Your task to perform on an android device: open app "Facebook" (install if not already installed) Image 0: 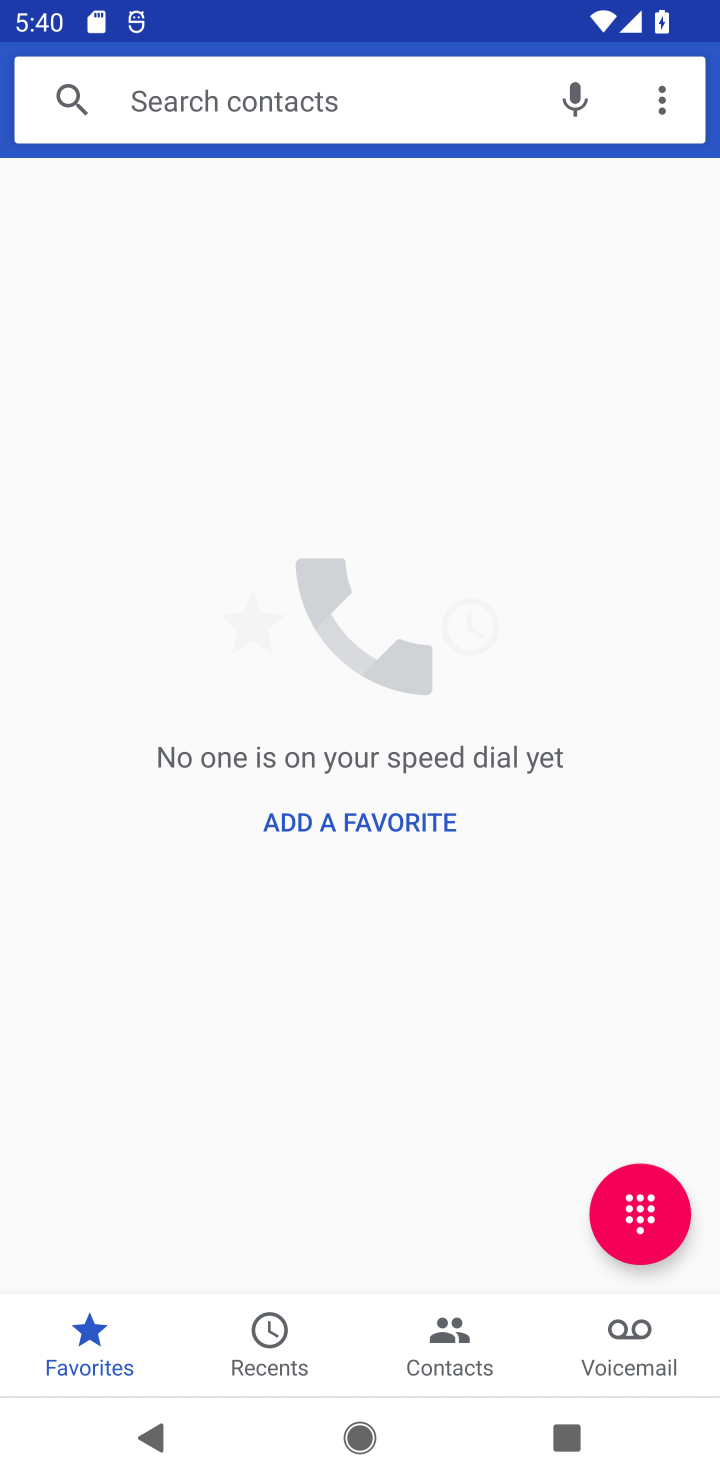
Step 0: press home button
Your task to perform on an android device: open app "Facebook" (install if not already installed) Image 1: 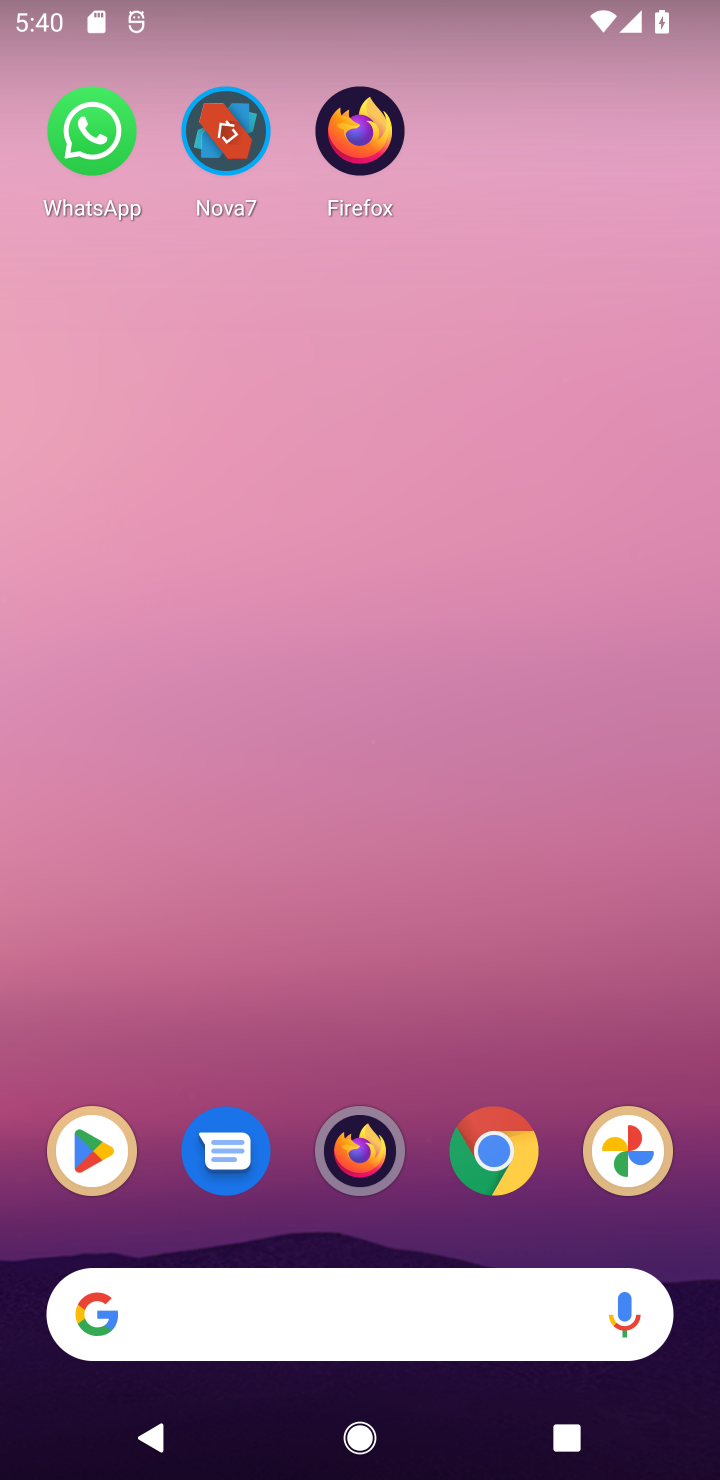
Step 1: click (106, 1161)
Your task to perform on an android device: open app "Facebook" (install if not already installed) Image 2: 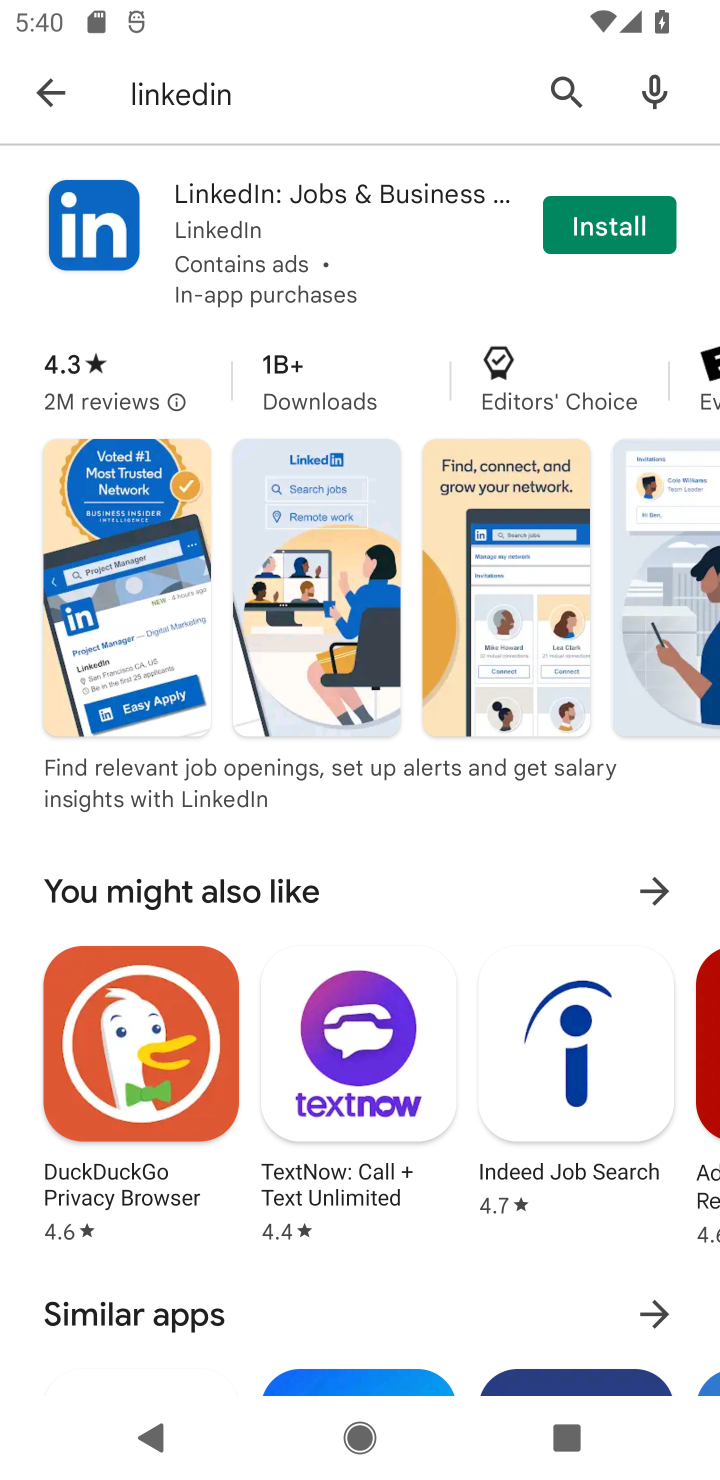
Step 2: click (549, 95)
Your task to perform on an android device: open app "Facebook" (install if not already installed) Image 3: 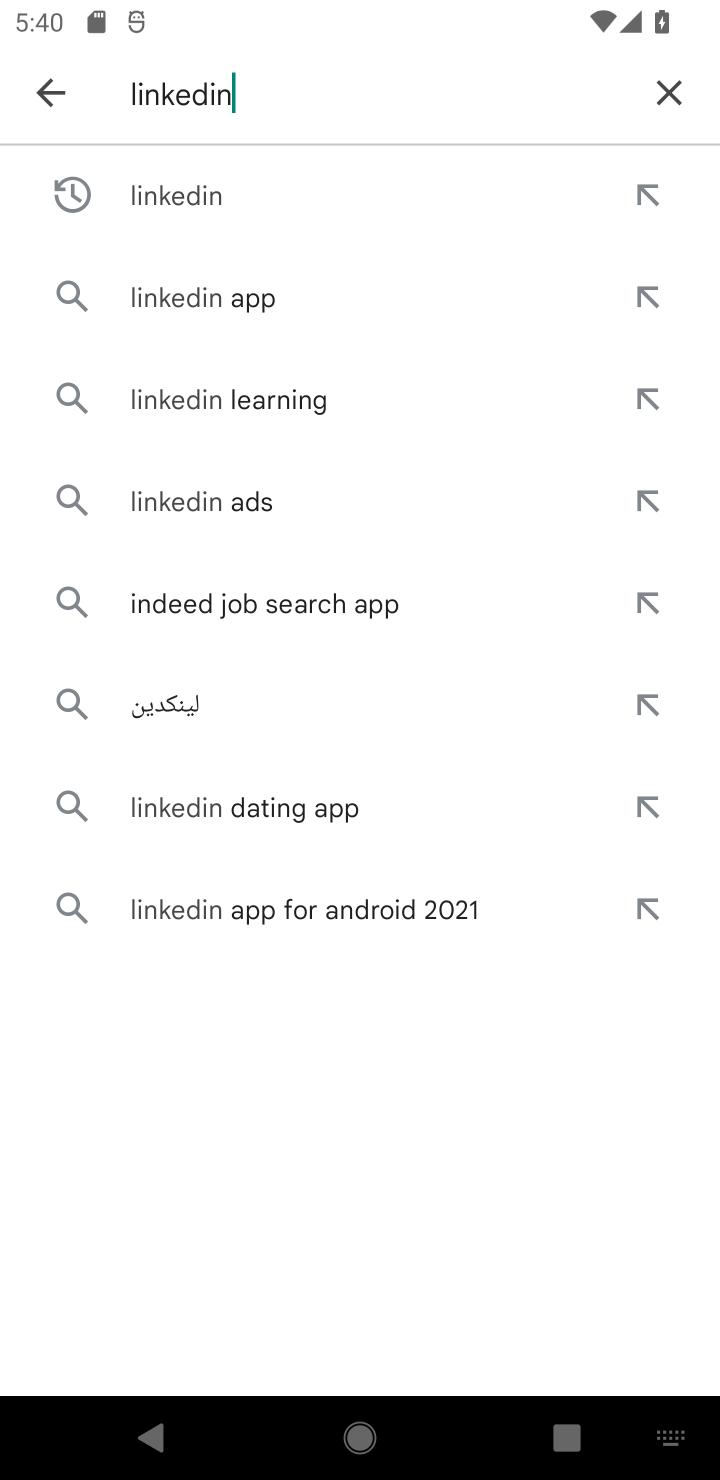
Step 3: click (656, 103)
Your task to perform on an android device: open app "Facebook" (install if not already installed) Image 4: 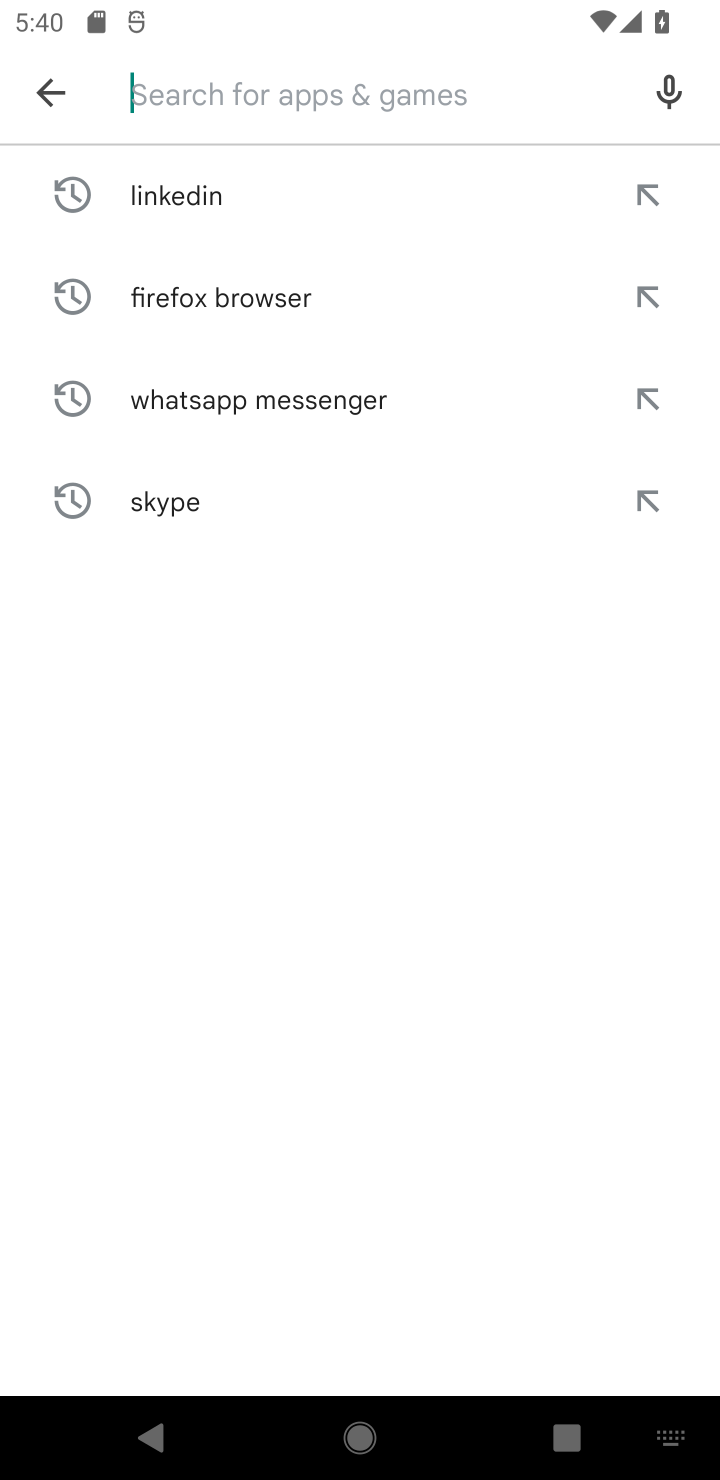
Step 4: type "Facebook"
Your task to perform on an android device: open app "Facebook" (install if not already installed) Image 5: 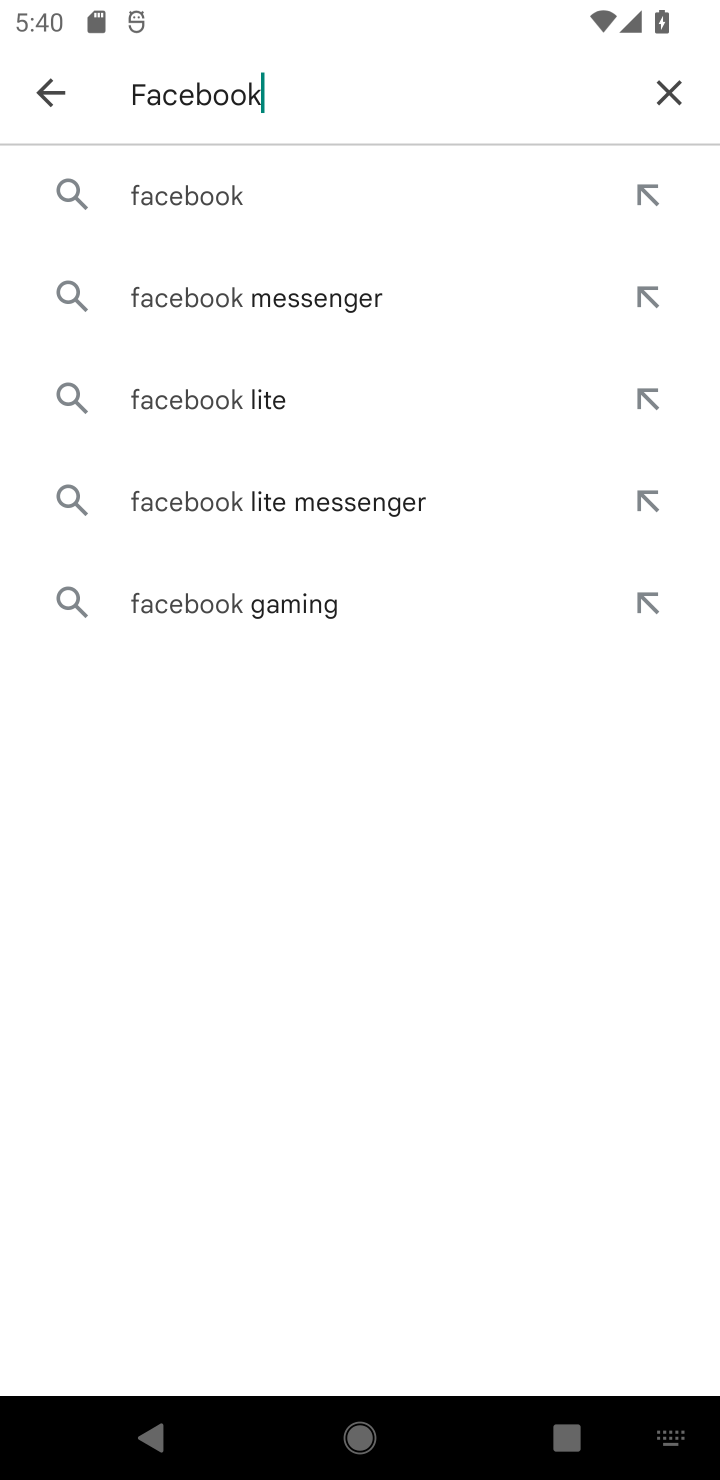
Step 5: click (197, 181)
Your task to perform on an android device: open app "Facebook" (install if not already installed) Image 6: 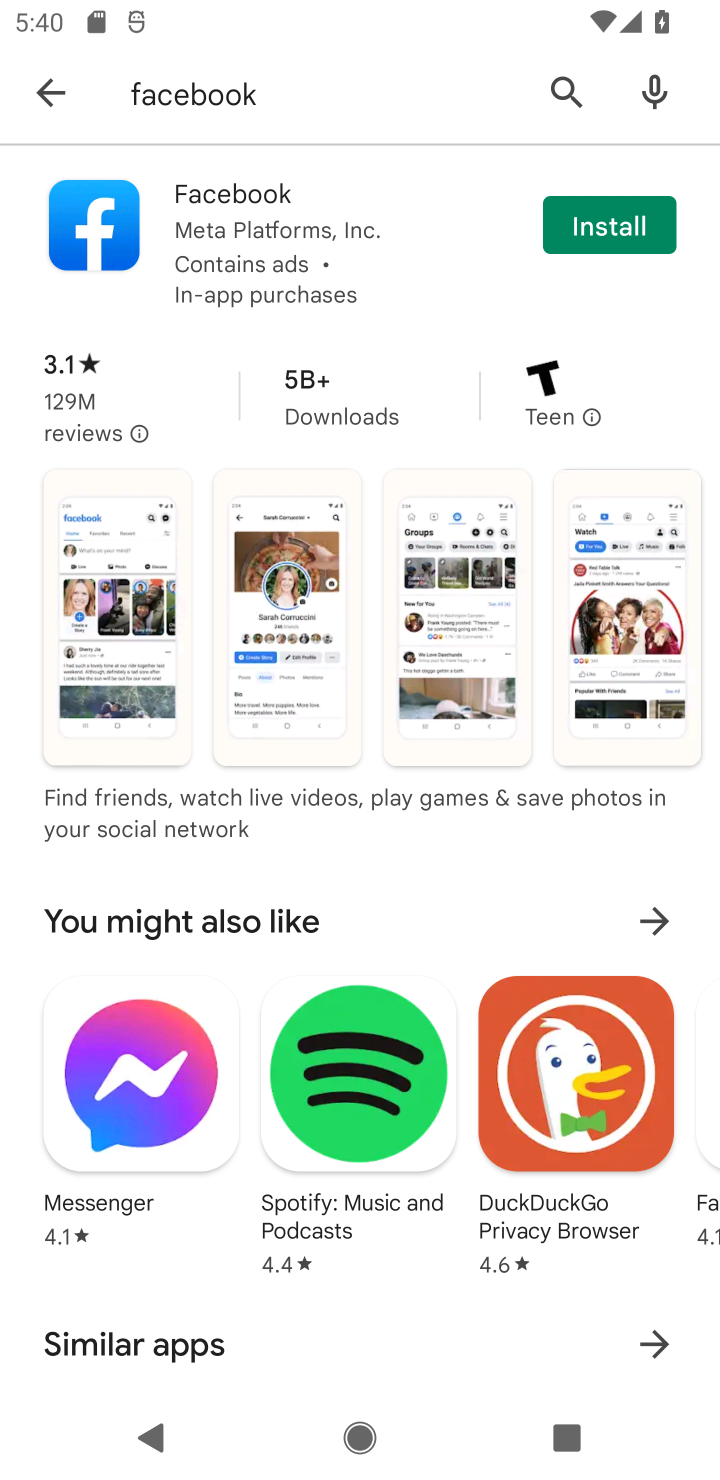
Step 6: click (604, 248)
Your task to perform on an android device: open app "Facebook" (install if not already installed) Image 7: 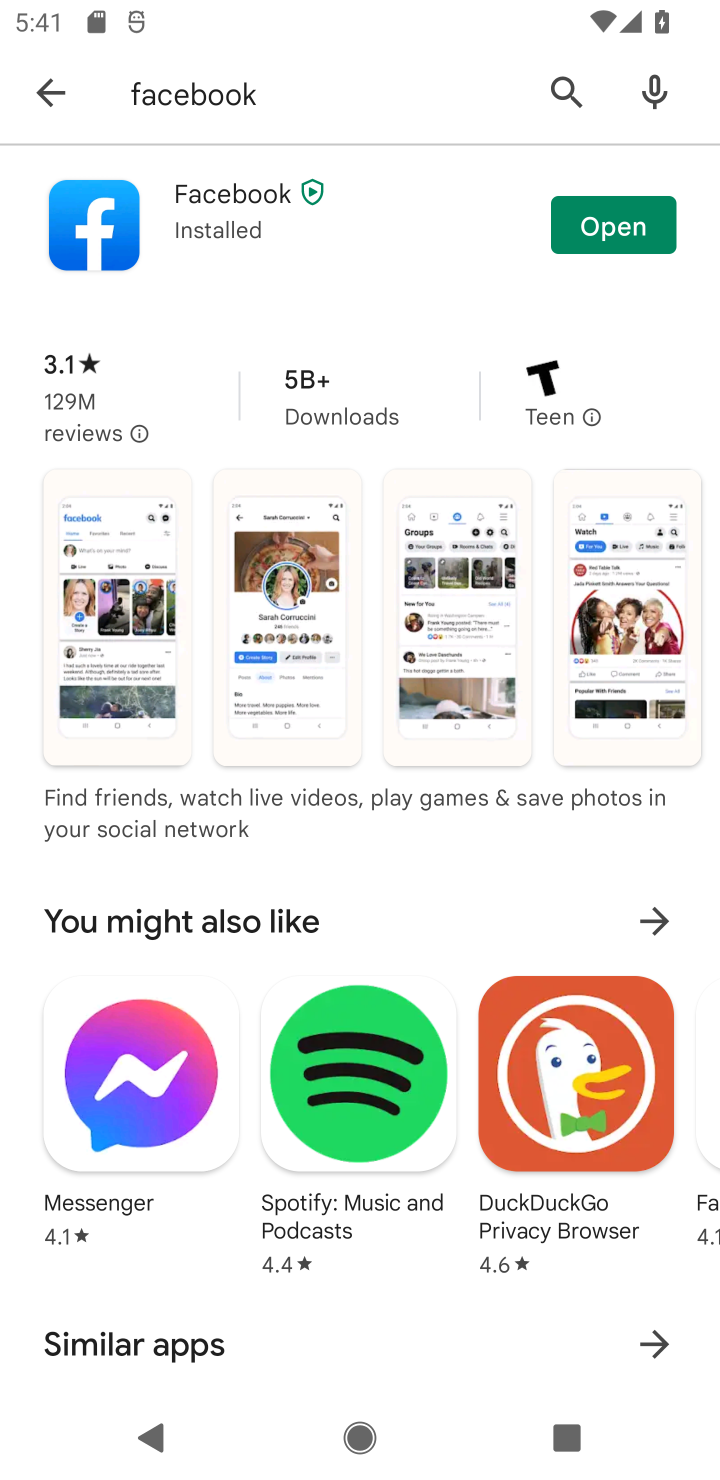
Step 7: click (606, 248)
Your task to perform on an android device: open app "Facebook" (install if not already installed) Image 8: 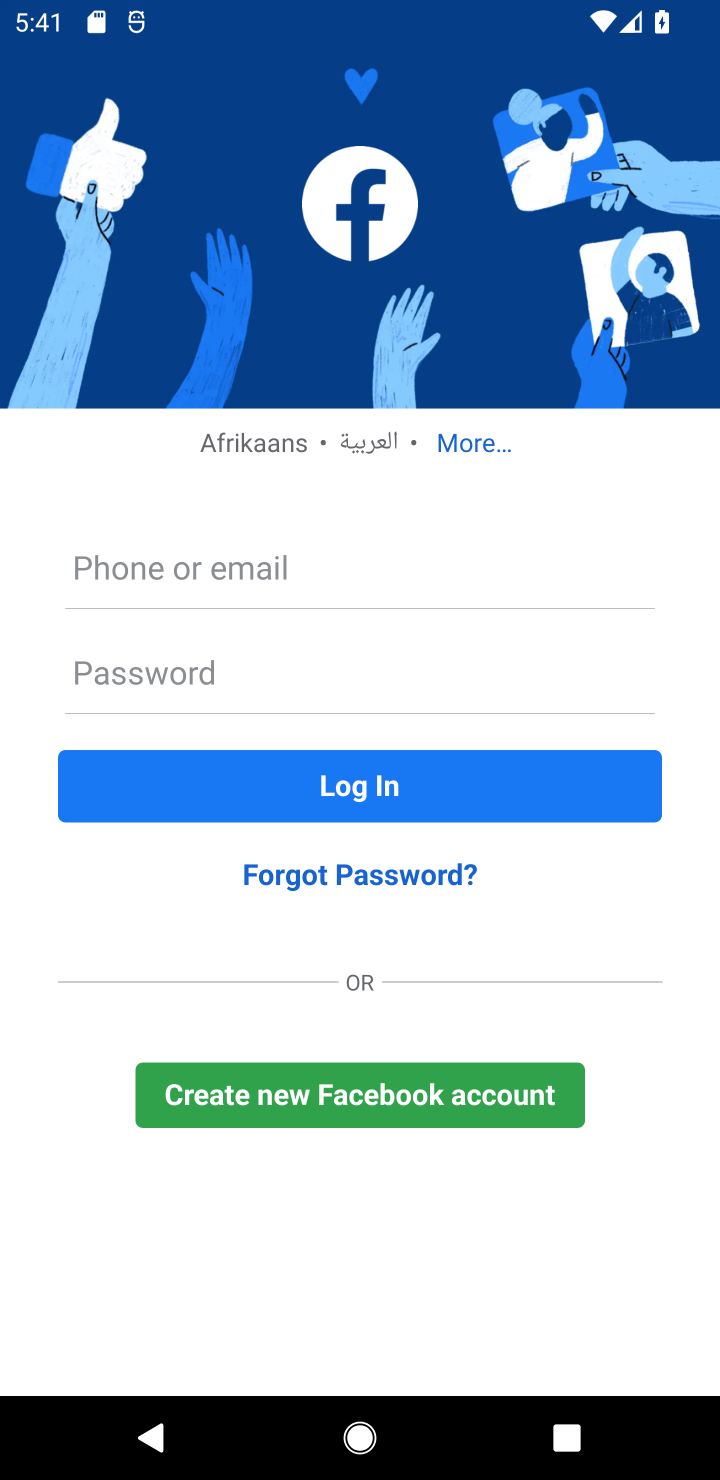
Step 8: task complete